Your task to perform on an android device: Go to notification settings Image 0: 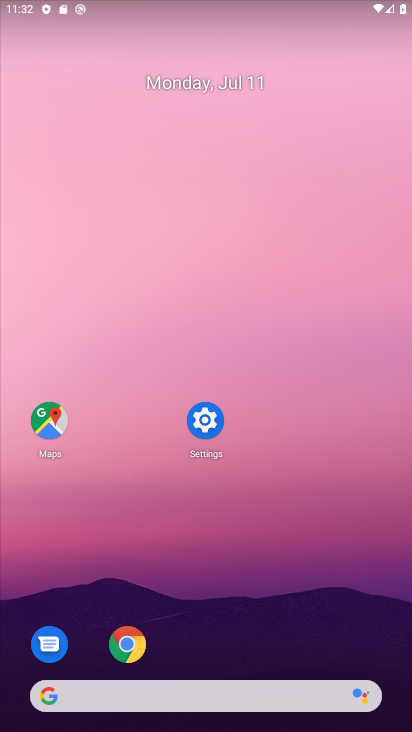
Step 0: drag from (375, 567) to (315, 224)
Your task to perform on an android device: Go to notification settings Image 1: 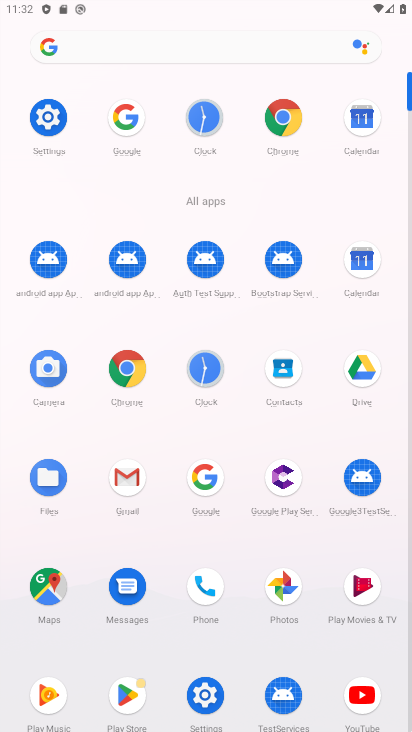
Step 1: click (60, 107)
Your task to perform on an android device: Go to notification settings Image 2: 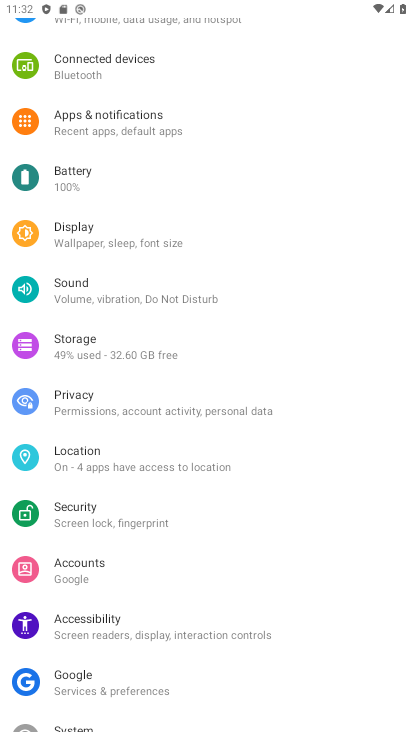
Step 2: click (70, 122)
Your task to perform on an android device: Go to notification settings Image 3: 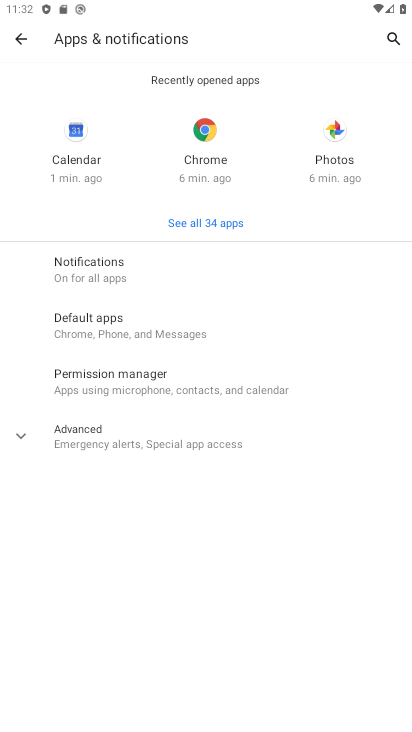
Step 3: click (48, 264)
Your task to perform on an android device: Go to notification settings Image 4: 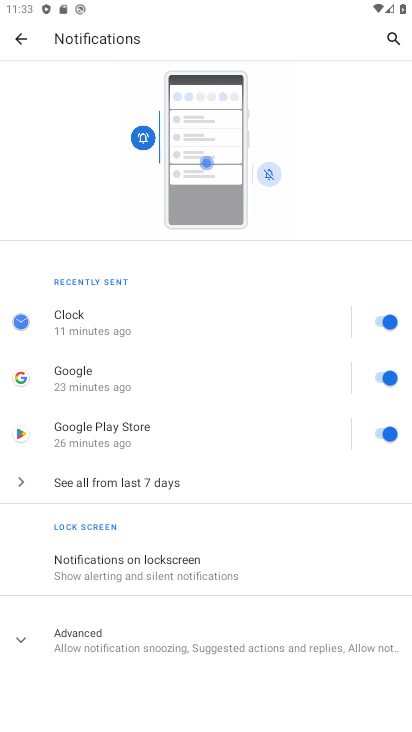
Step 4: click (26, 637)
Your task to perform on an android device: Go to notification settings Image 5: 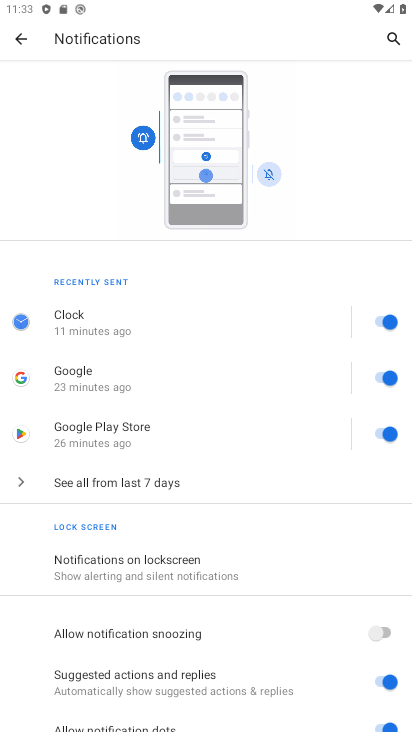
Step 5: task complete